Your task to perform on an android device: What's on my calendar tomorrow? Image 0: 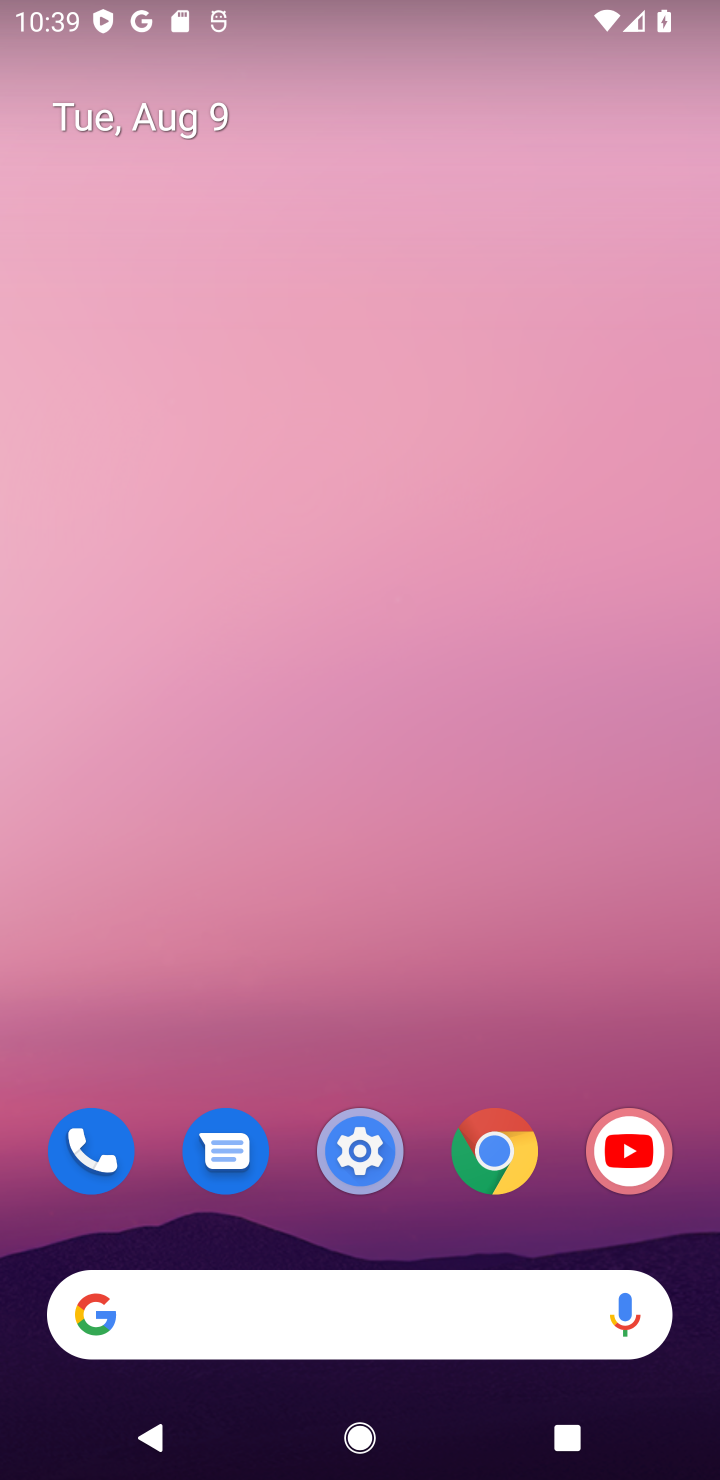
Step 0: drag from (357, 1024) to (421, 237)
Your task to perform on an android device: What's on my calendar tomorrow? Image 1: 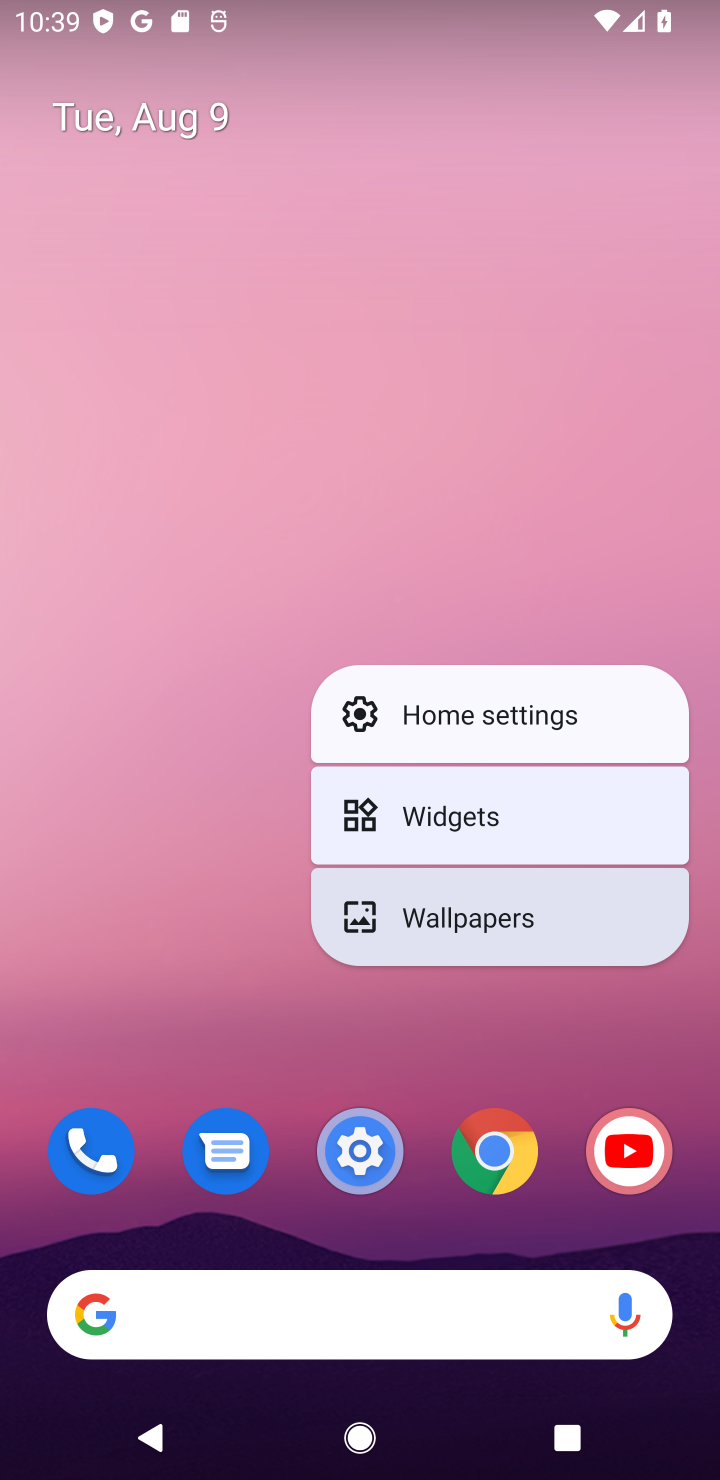
Step 1: click (420, 255)
Your task to perform on an android device: What's on my calendar tomorrow? Image 2: 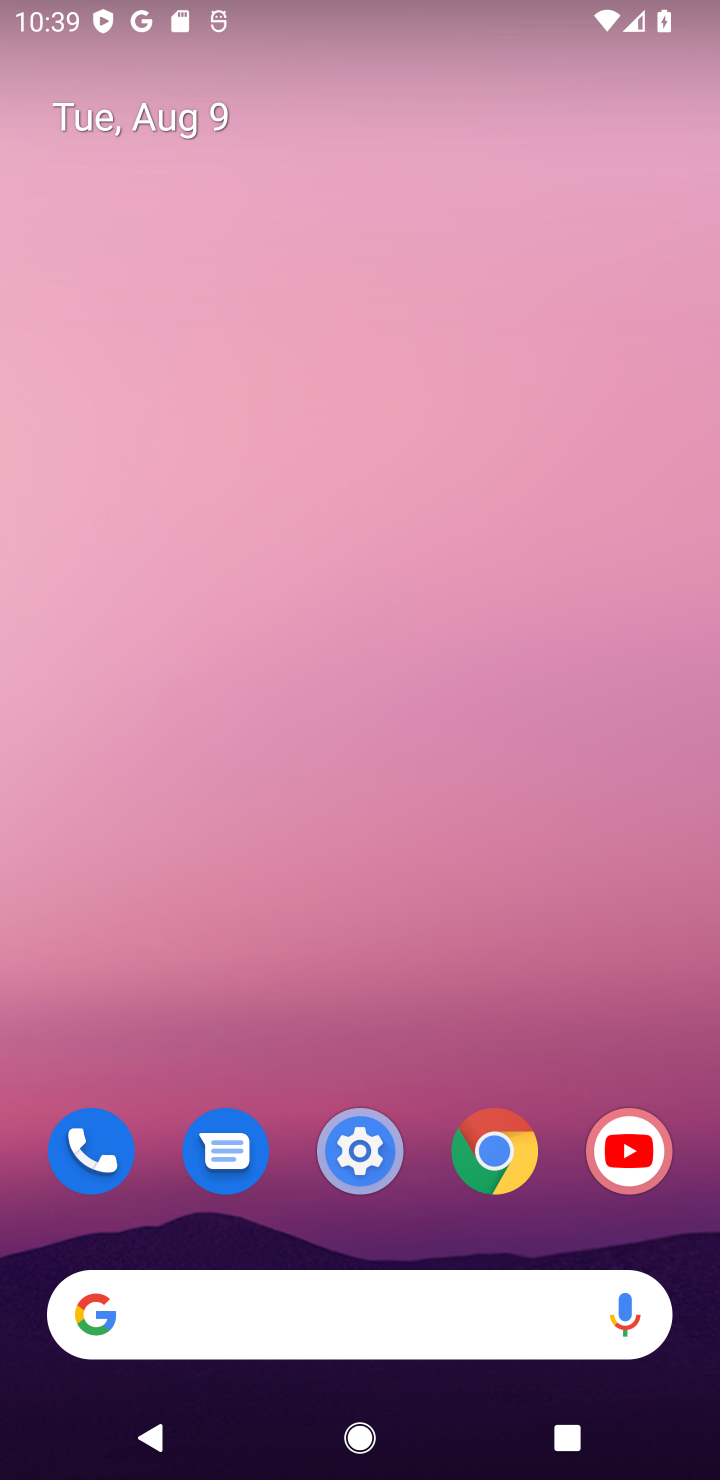
Step 2: drag from (522, 1095) to (425, 541)
Your task to perform on an android device: What's on my calendar tomorrow? Image 3: 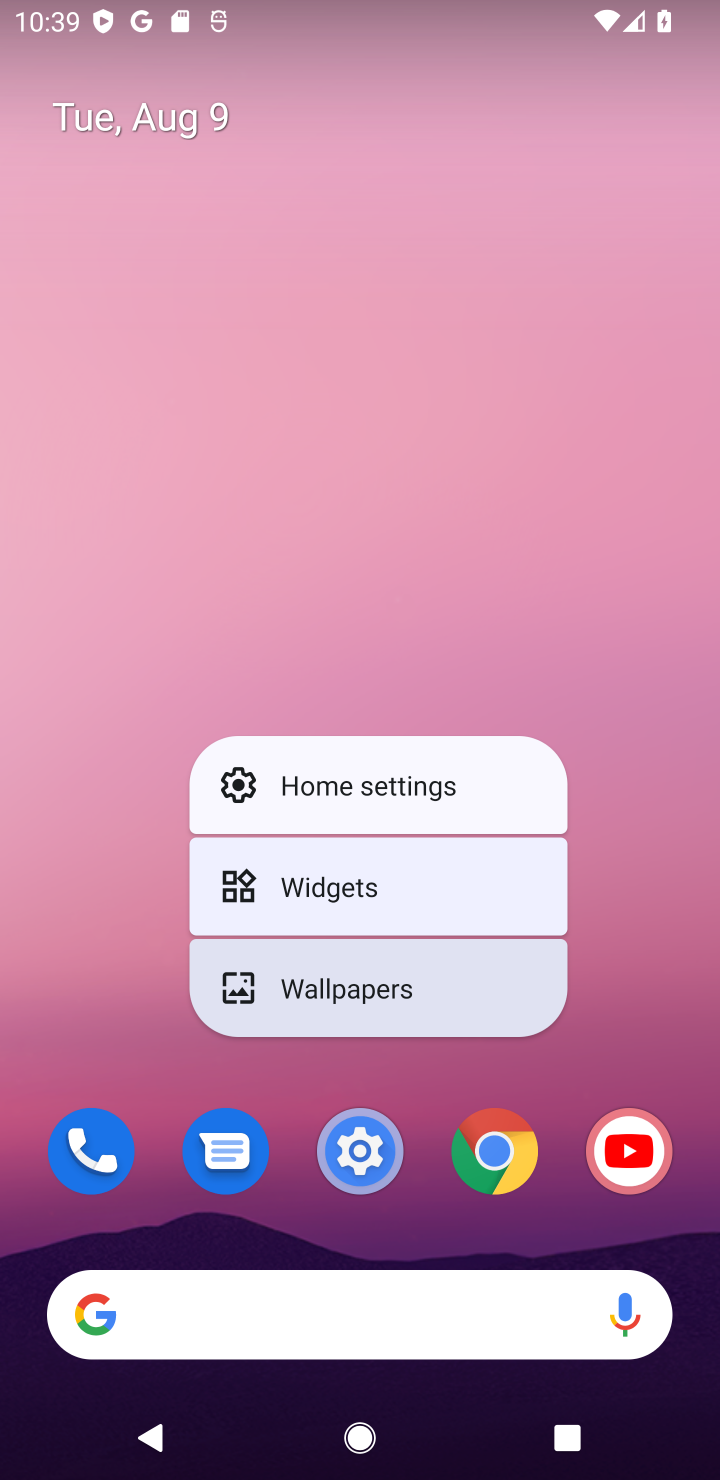
Step 3: click (701, 990)
Your task to perform on an android device: What's on my calendar tomorrow? Image 4: 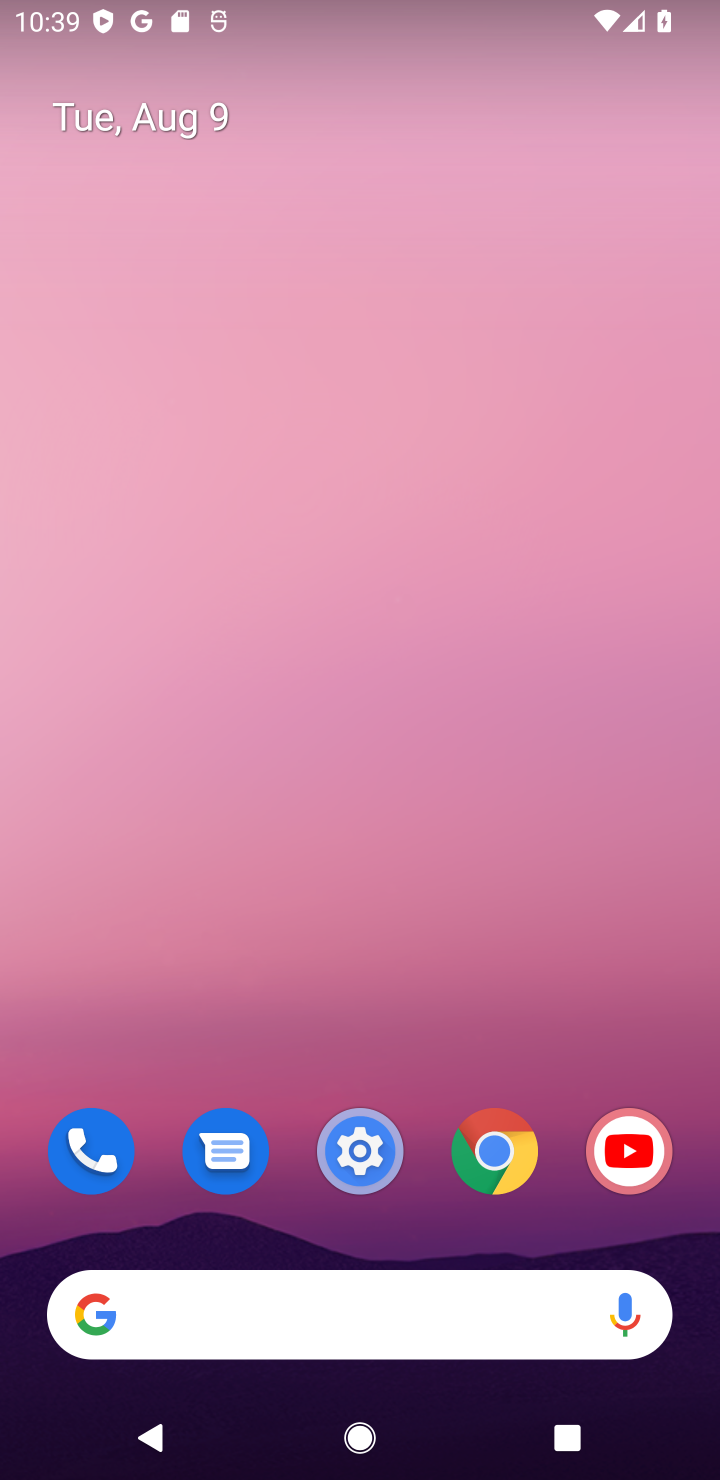
Step 4: drag from (370, 1015) to (310, 134)
Your task to perform on an android device: What's on my calendar tomorrow? Image 5: 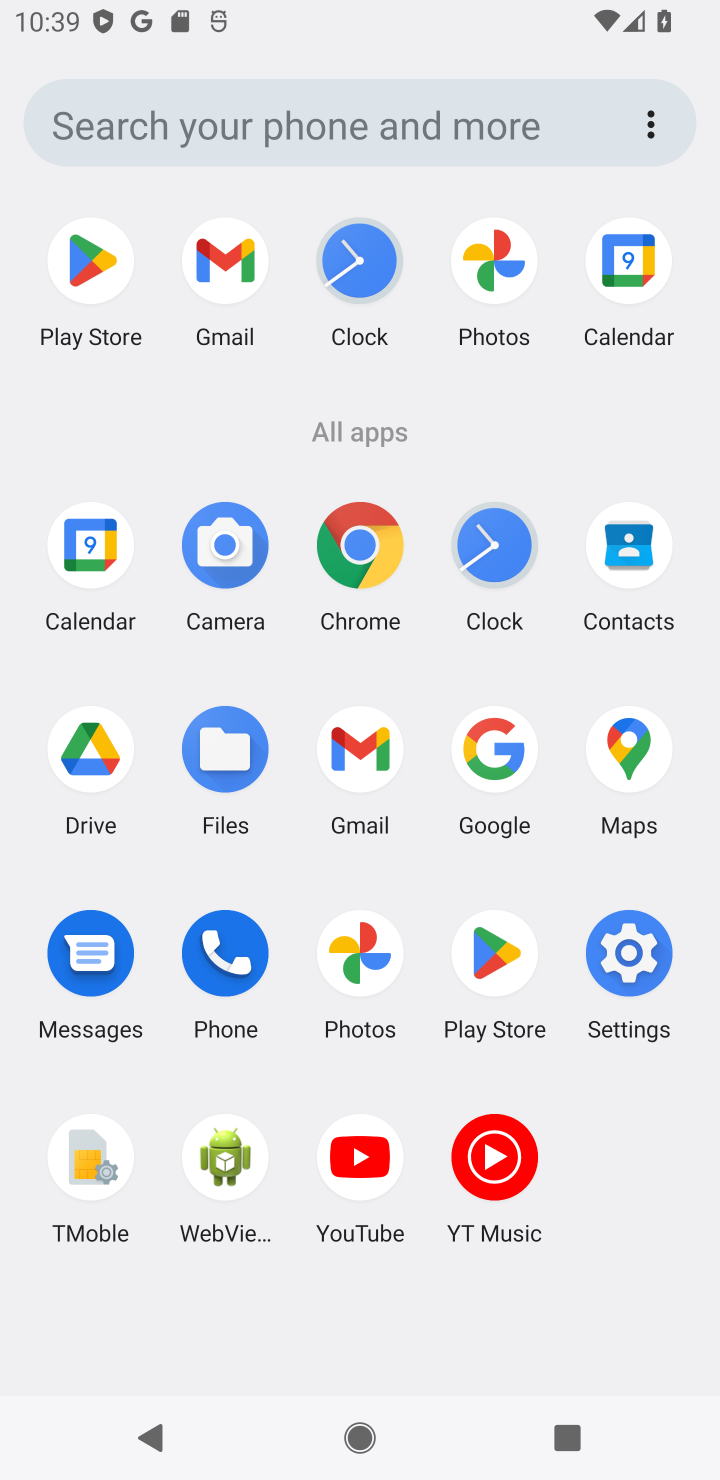
Step 5: click (91, 553)
Your task to perform on an android device: What's on my calendar tomorrow? Image 6: 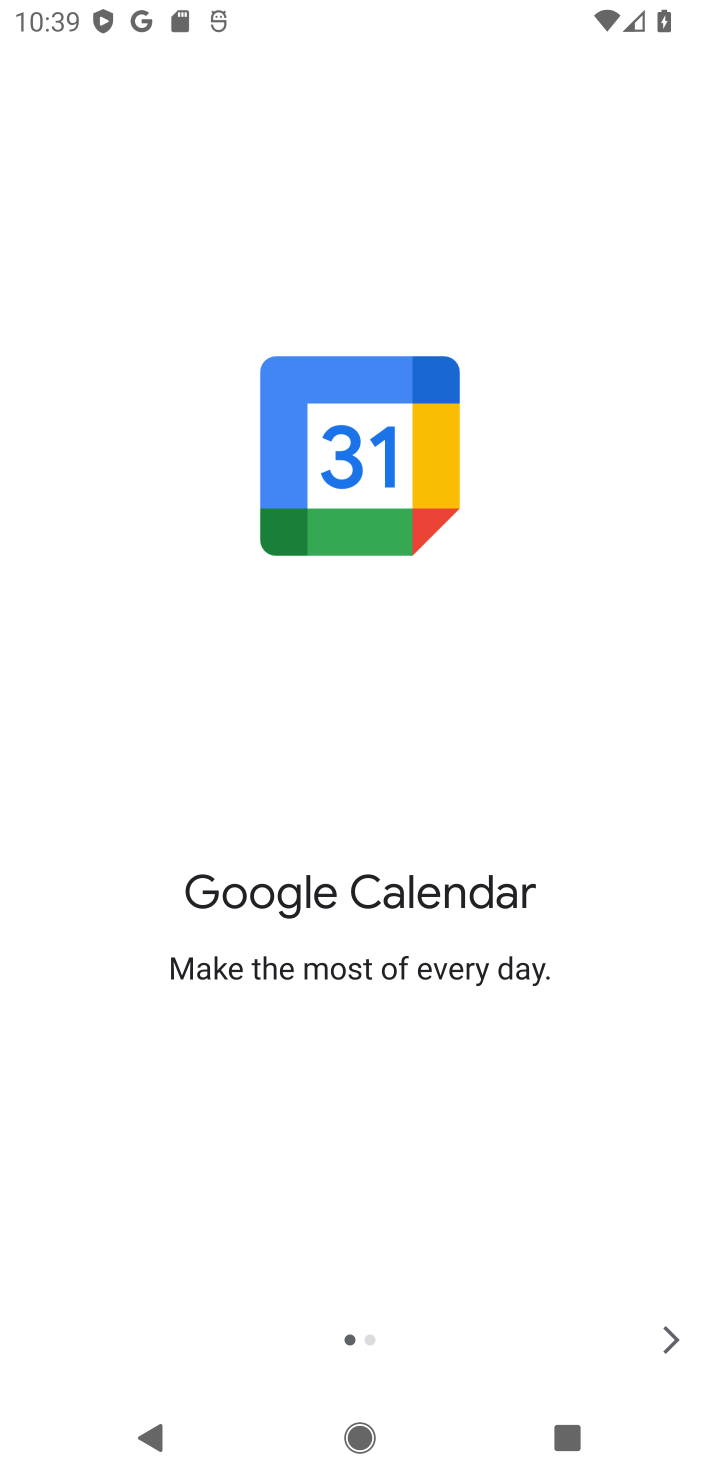
Step 6: click (663, 1324)
Your task to perform on an android device: What's on my calendar tomorrow? Image 7: 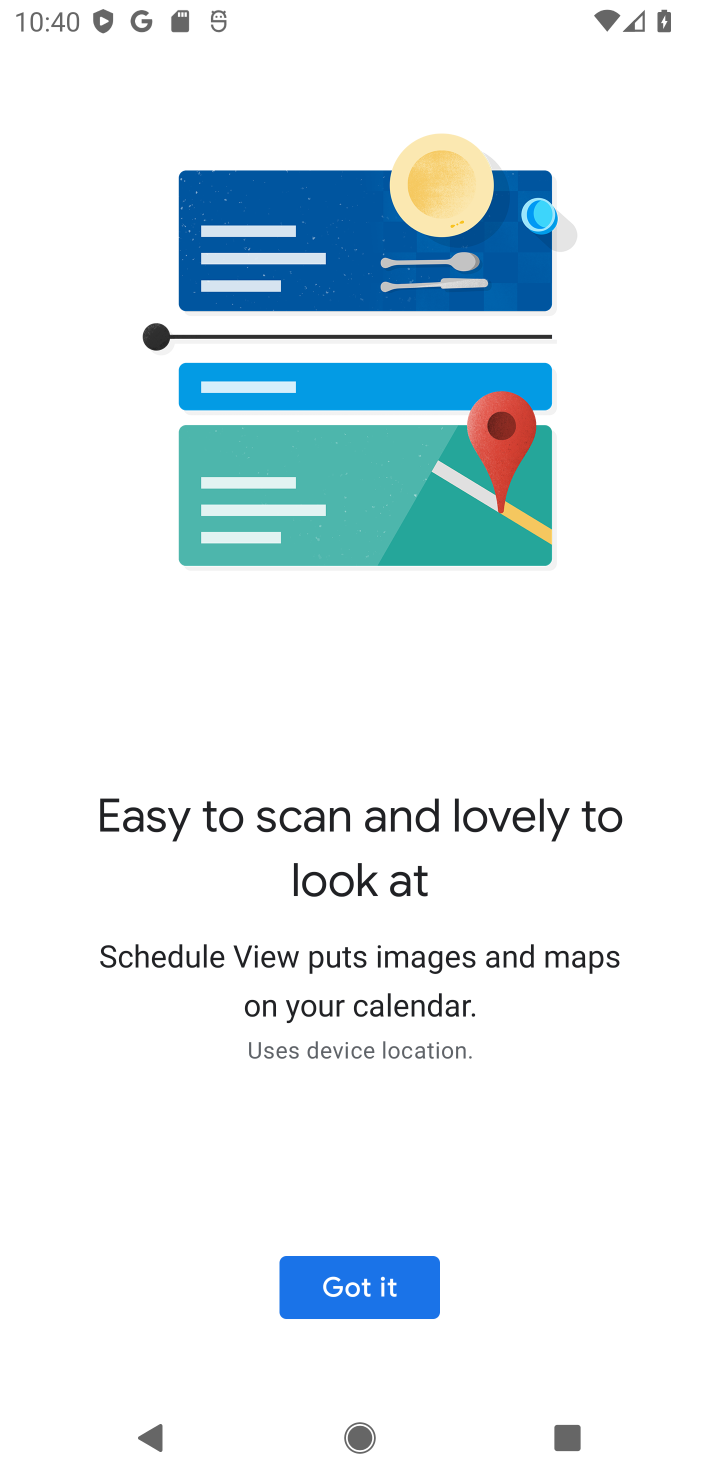
Step 7: click (385, 1270)
Your task to perform on an android device: What's on my calendar tomorrow? Image 8: 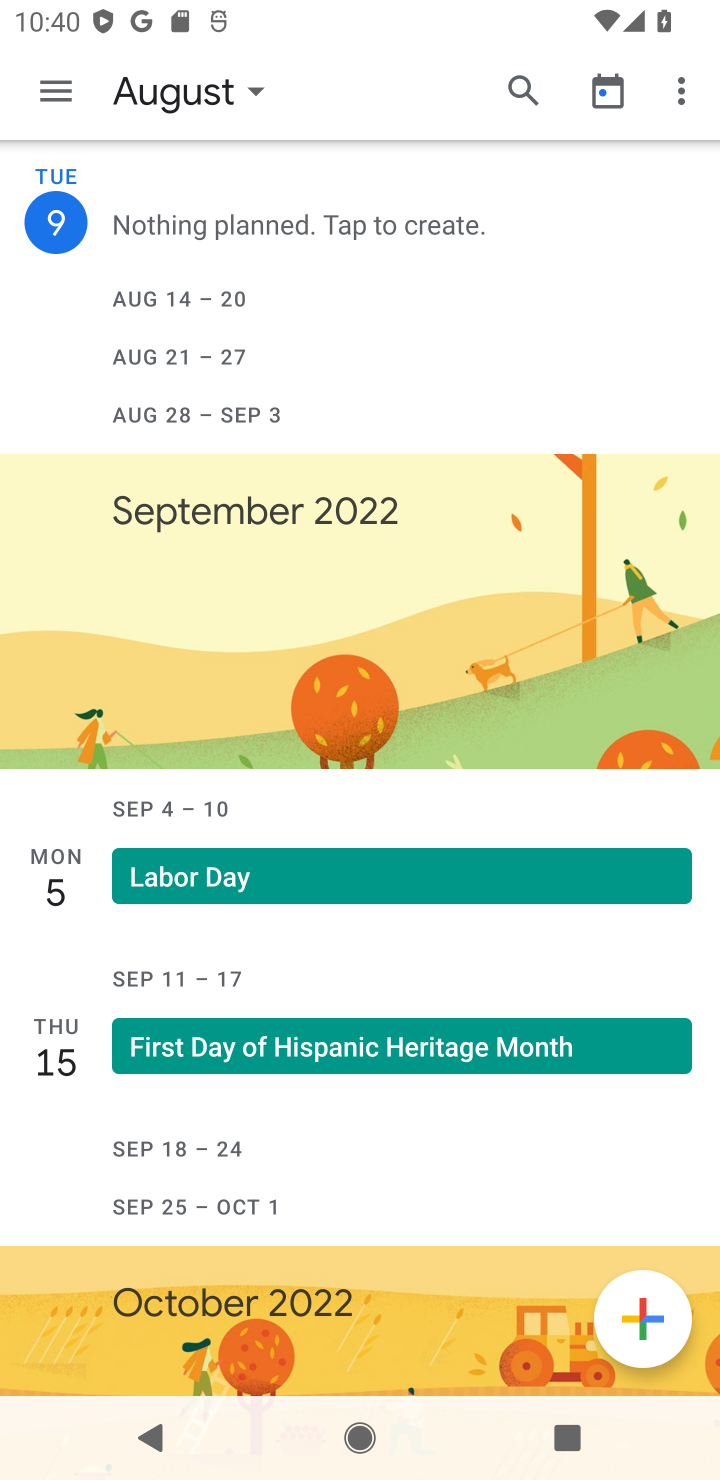
Step 8: click (54, 83)
Your task to perform on an android device: What's on my calendar tomorrow? Image 9: 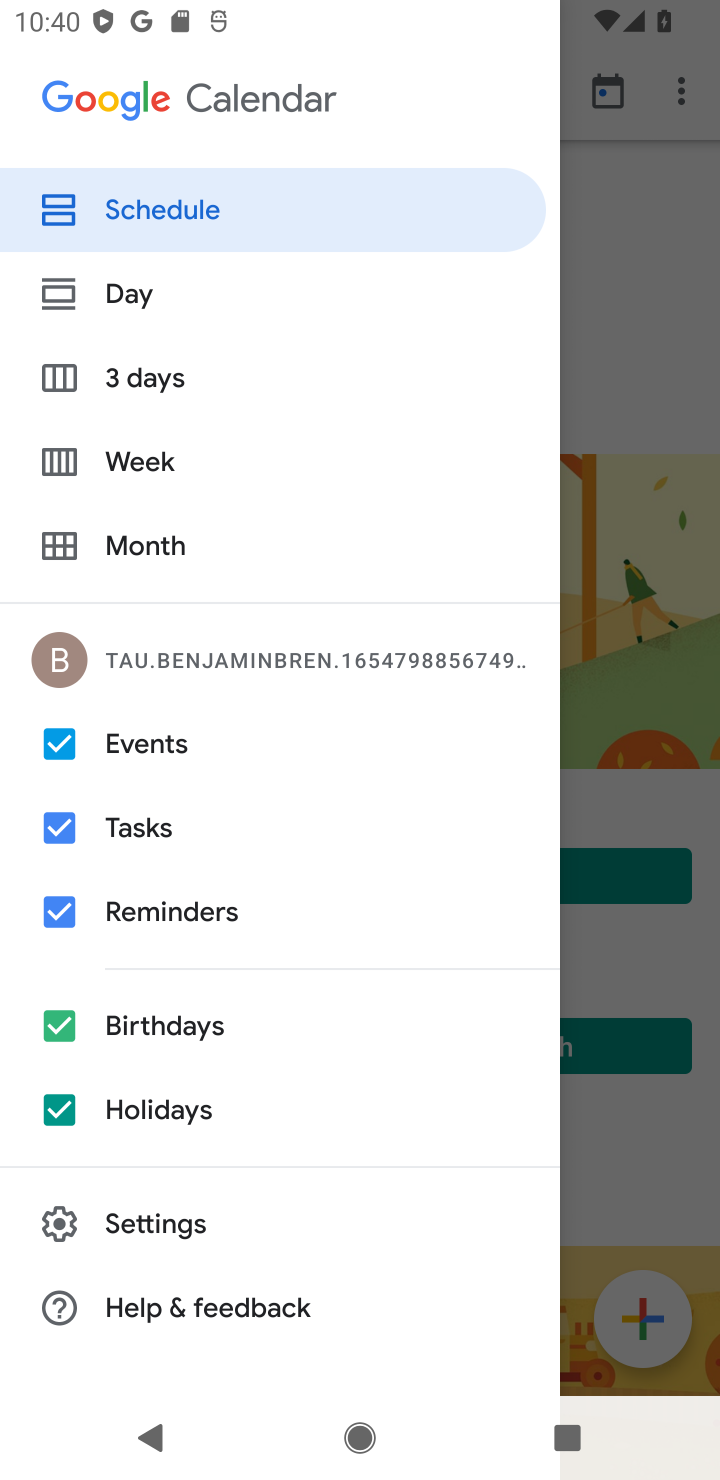
Step 9: click (162, 300)
Your task to perform on an android device: What's on my calendar tomorrow? Image 10: 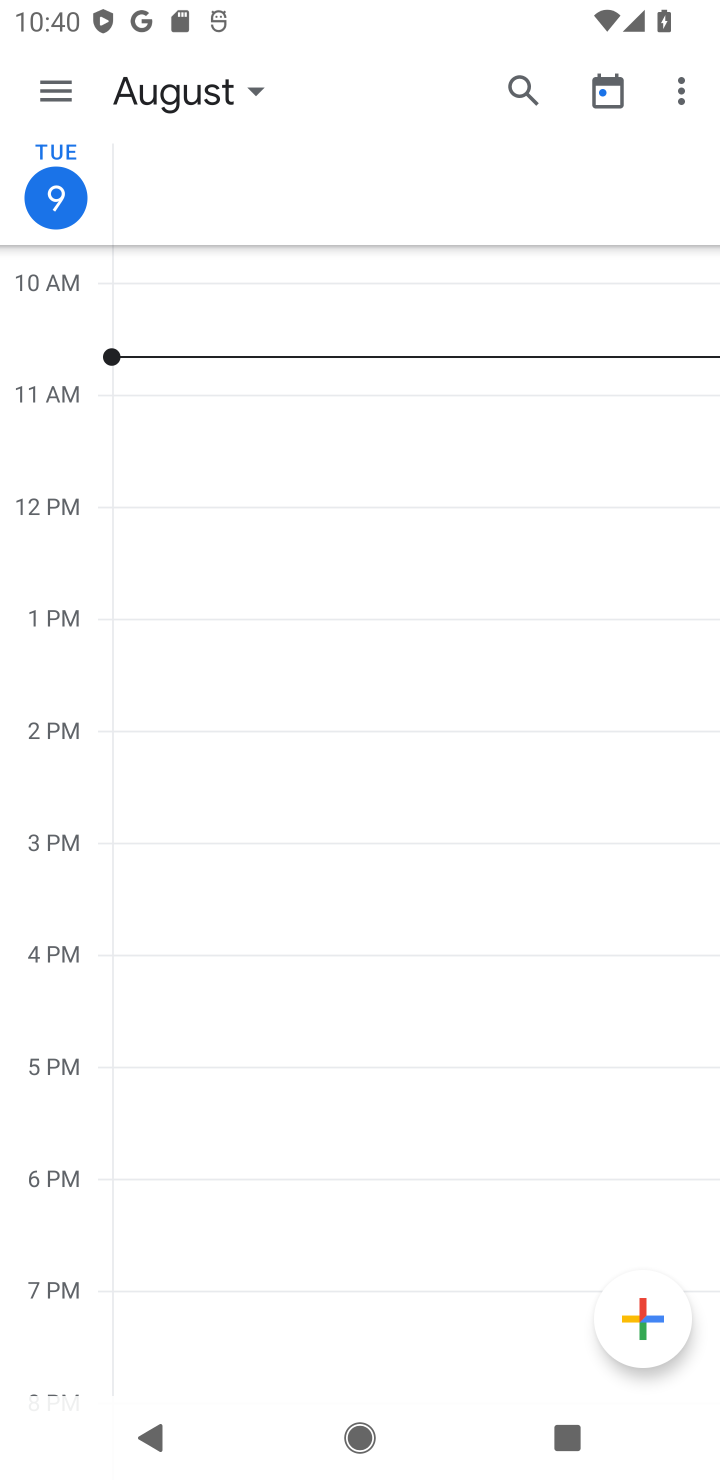
Step 10: click (183, 88)
Your task to perform on an android device: What's on my calendar tomorrow? Image 11: 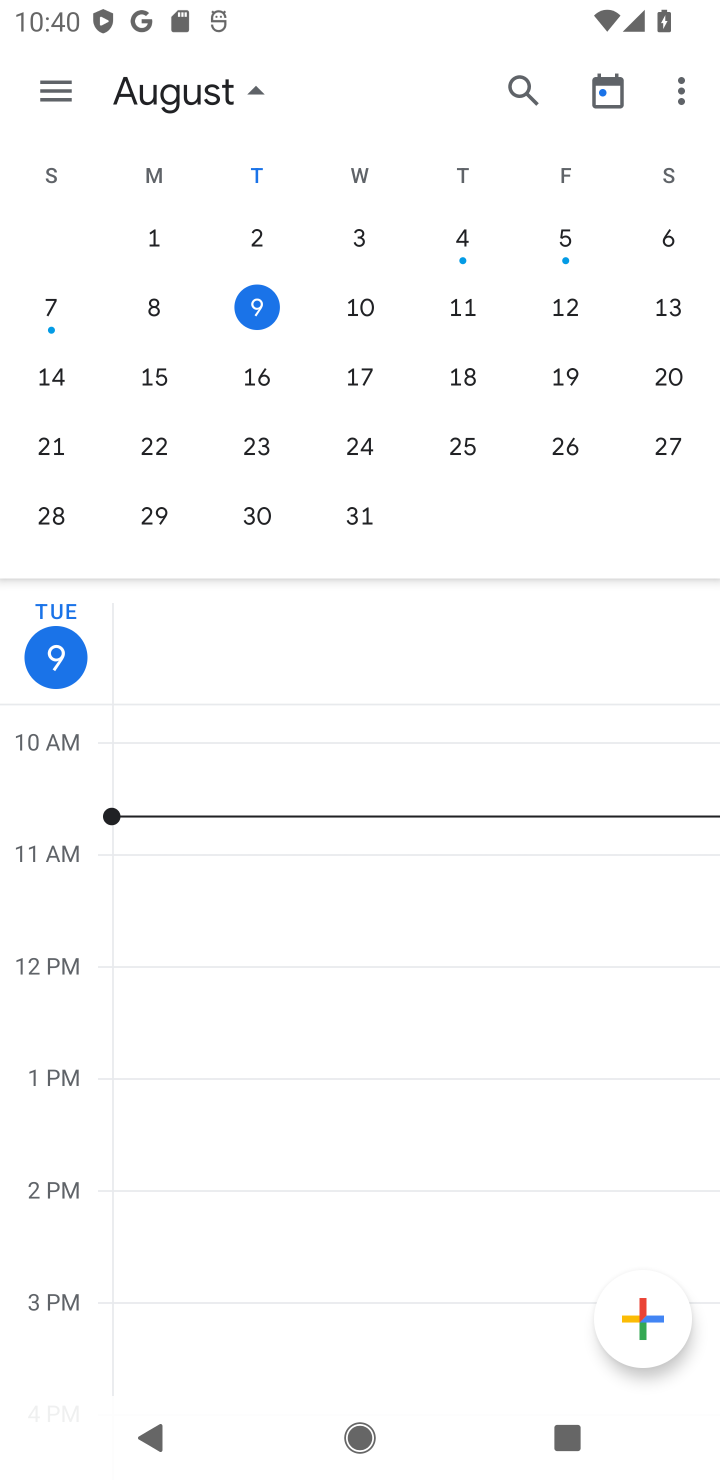
Step 11: click (368, 303)
Your task to perform on an android device: What's on my calendar tomorrow? Image 12: 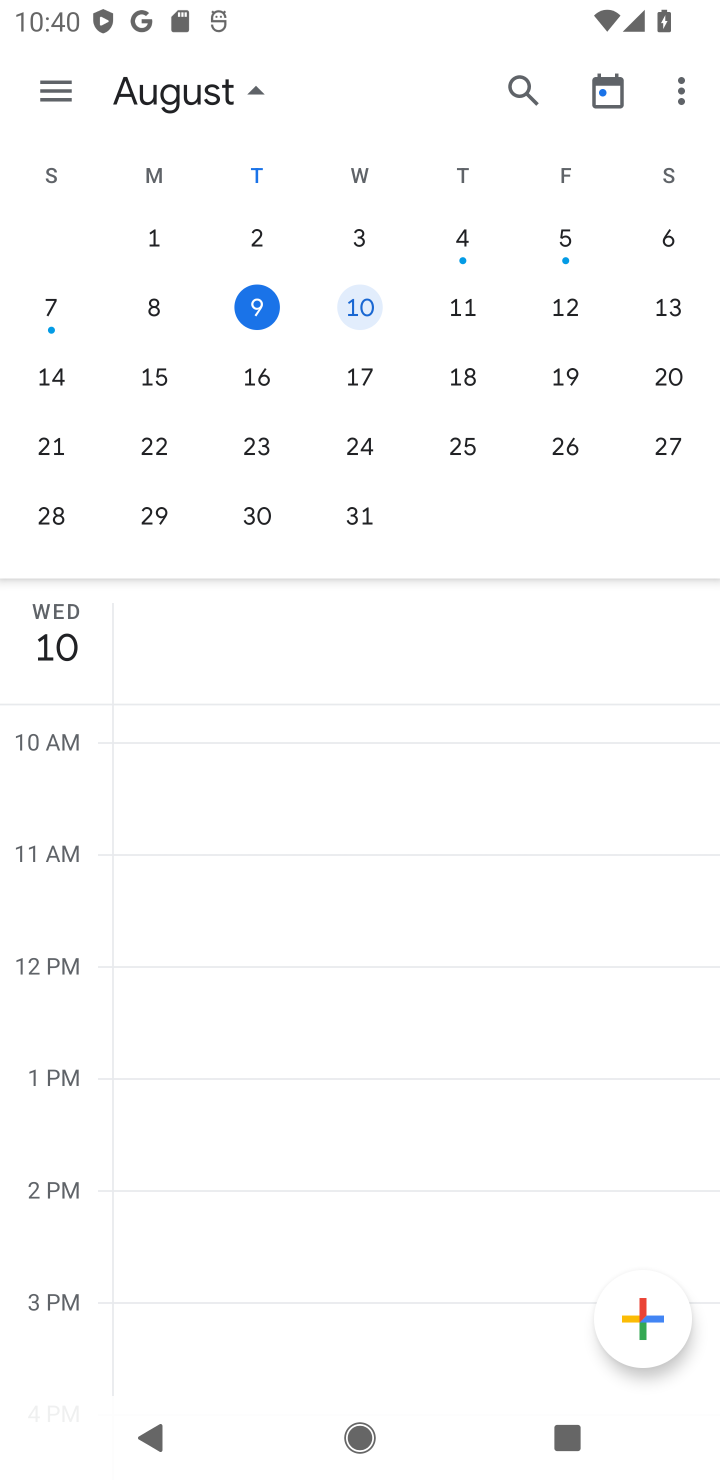
Step 12: task complete